Your task to perform on an android device: Open Maps and search for coffee Image 0: 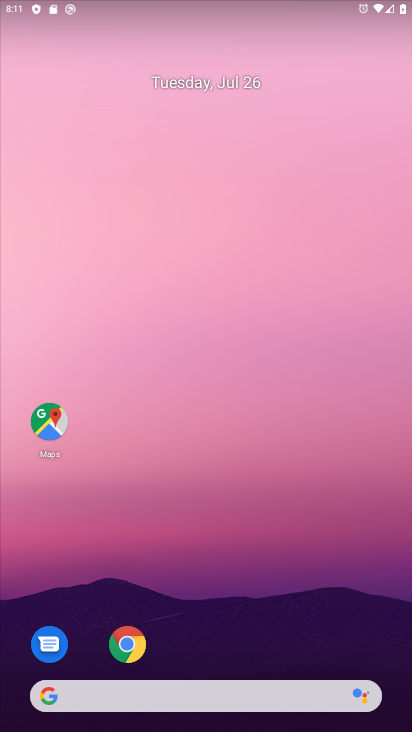
Step 0: click (55, 431)
Your task to perform on an android device: Open Maps and search for coffee Image 1: 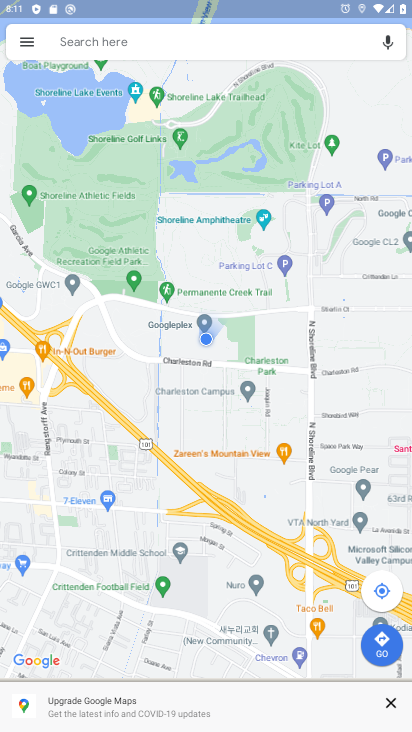
Step 1: click (223, 37)
Your task to perform on an android device: Open Maps and search for coffee Image 2: 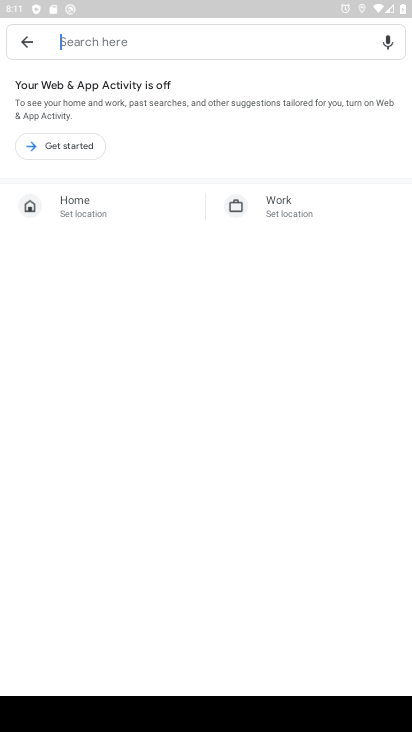
Step 2: click (198, 31)
Your task to perform on an android device: Open Maps and search for coffee Image 3: 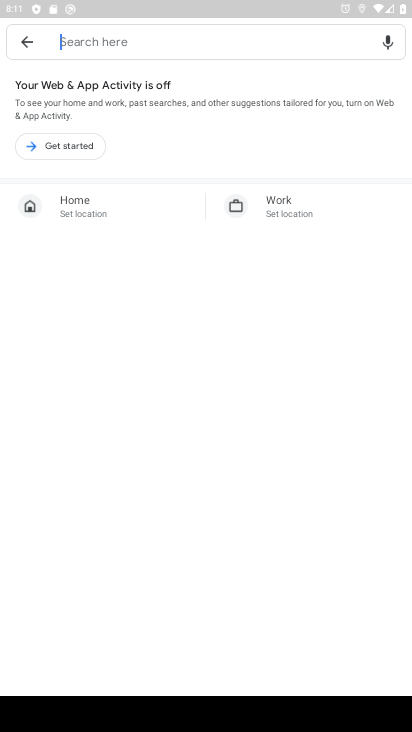
Step 3: type " coffee "
Your task to perform on an android device: Open Maps and search for coffee Image 4: 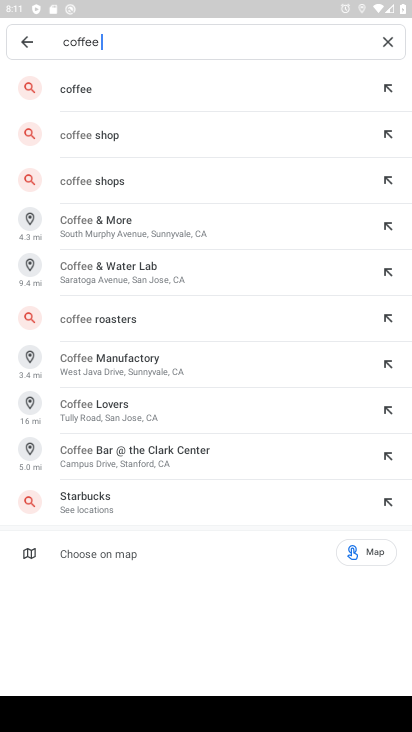
Step 4: click (93, 84)
Your task to perform on an android device: Open Maps and search for coffee Image 5: 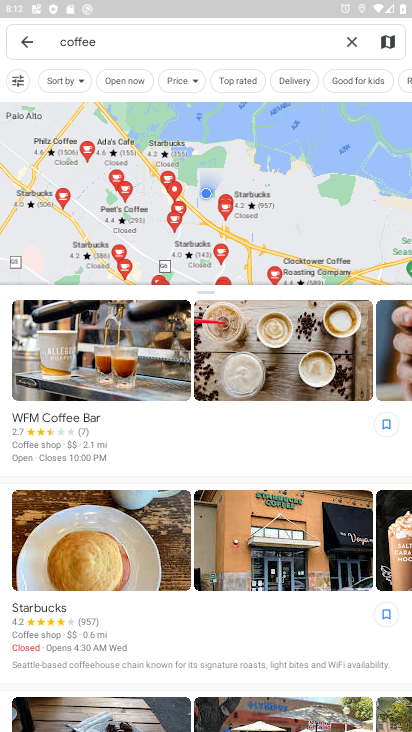
Step 5: task complete